Your task to perform on an android device: find which apps use the phone's location Image 0: 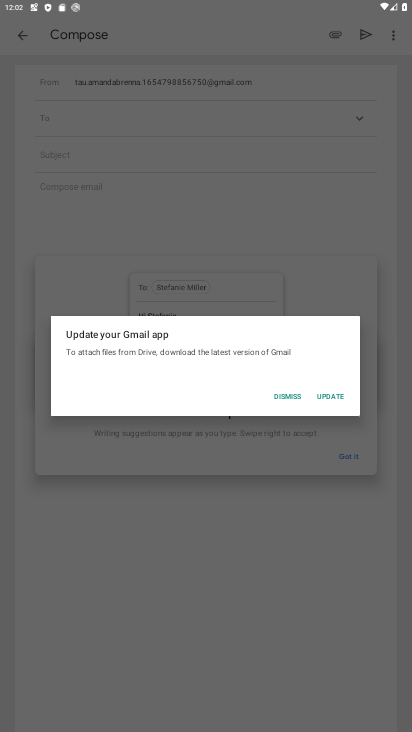
Step 0: click (283, 396)
Your task to perform on an android device: find which apps use the phone's location Image 1: 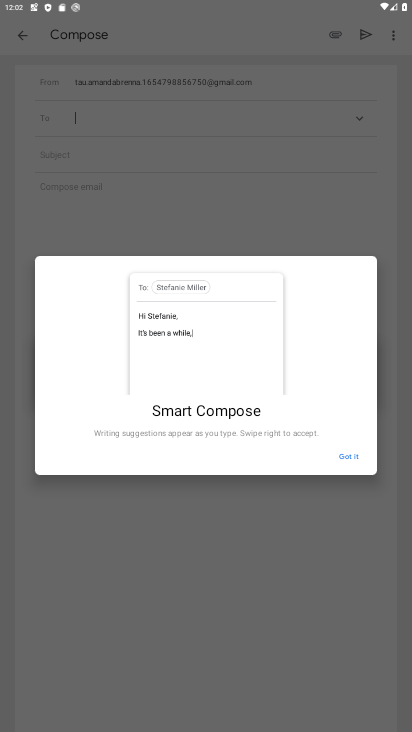
Step 1: click (361, 454)
Your task to perform on an android device: find which apps use the phone's location Image 2: 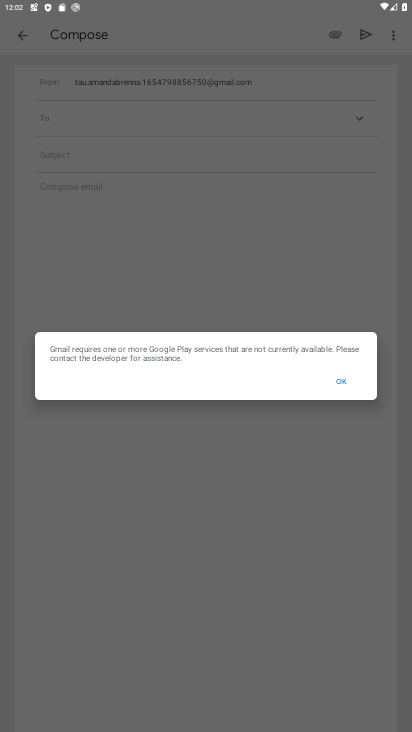
Step 2: click (329, 382)
Your task to perform on an android device: find which apps use the phone's location Image 3: 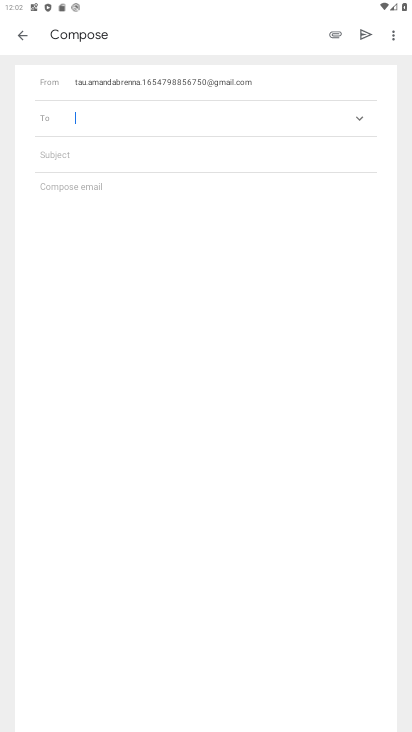
Step 3: press home button
Your task to perform on an android device: find which apps use the phone's location Image 4: 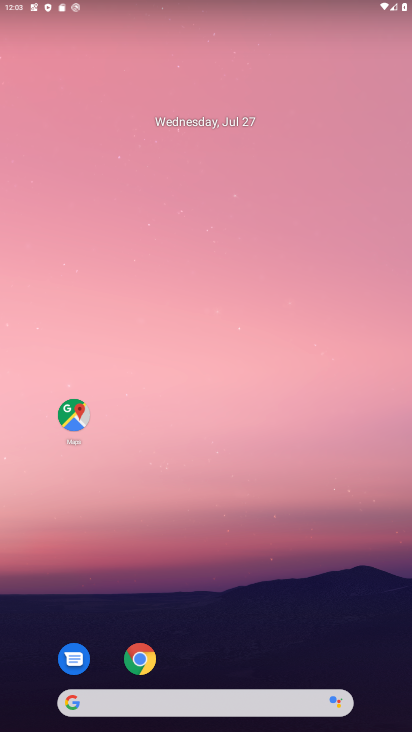
Step 4: drag from (218, 664) to (226, 60)
Your task to perform on an android device: find which apps use the phone's location Image 5: 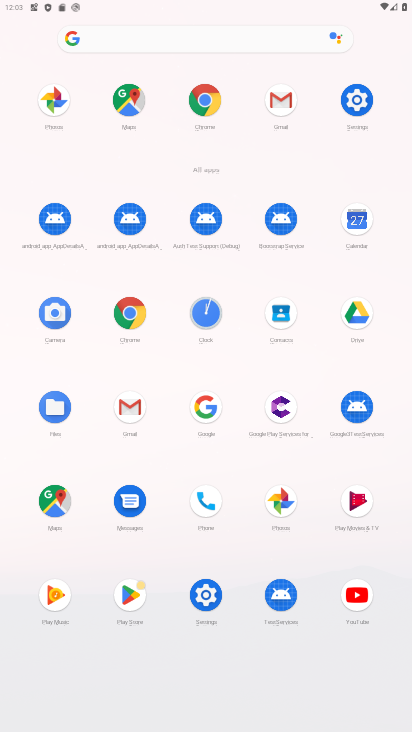
Step 5: click (358, 102)
Your task to perform on an android device: find which apps use the phone's location Image 6: 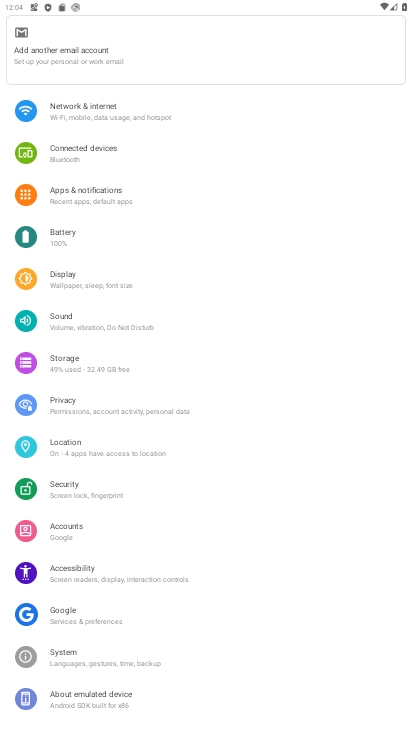
Step 6: click (98, 454)
Your task to perform on an android device: find which apps use the phone's location Image 7: 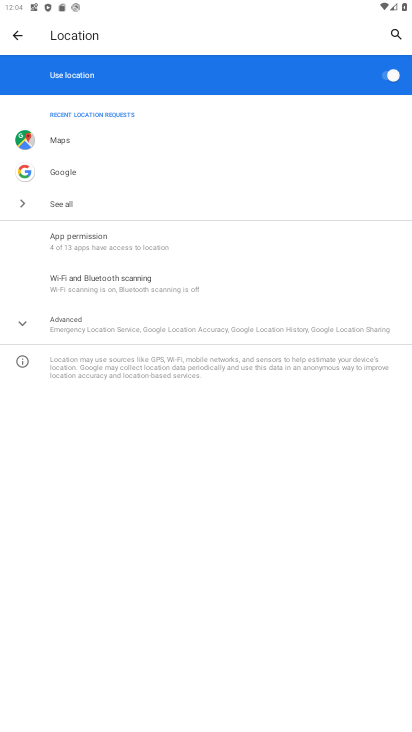
Step 7: click (98, 244)
Your task to perform on an android device: find which apps use the phone's location Image 8: 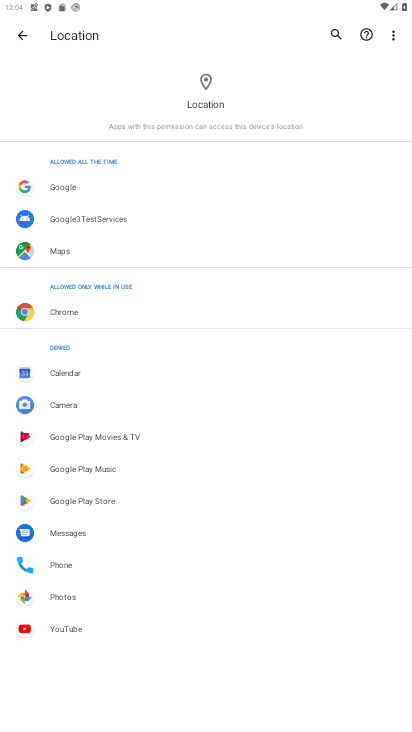
Step 8: task complete